Your task to perform on an android device: What's on my calendar today? Image 0: 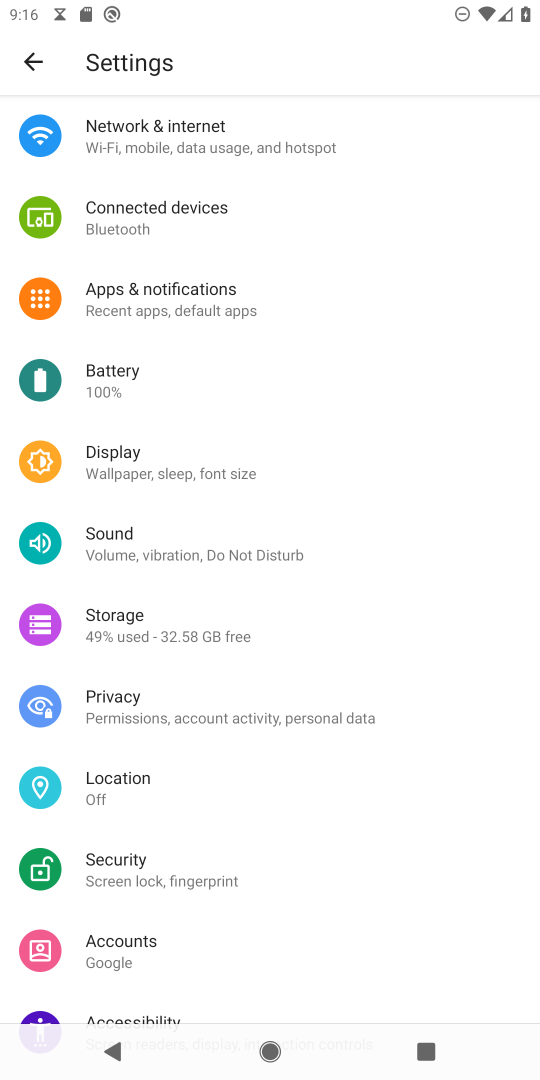
Step 0: press home button
Your task to perform on an android device: What's on my calendar today? Image 1: 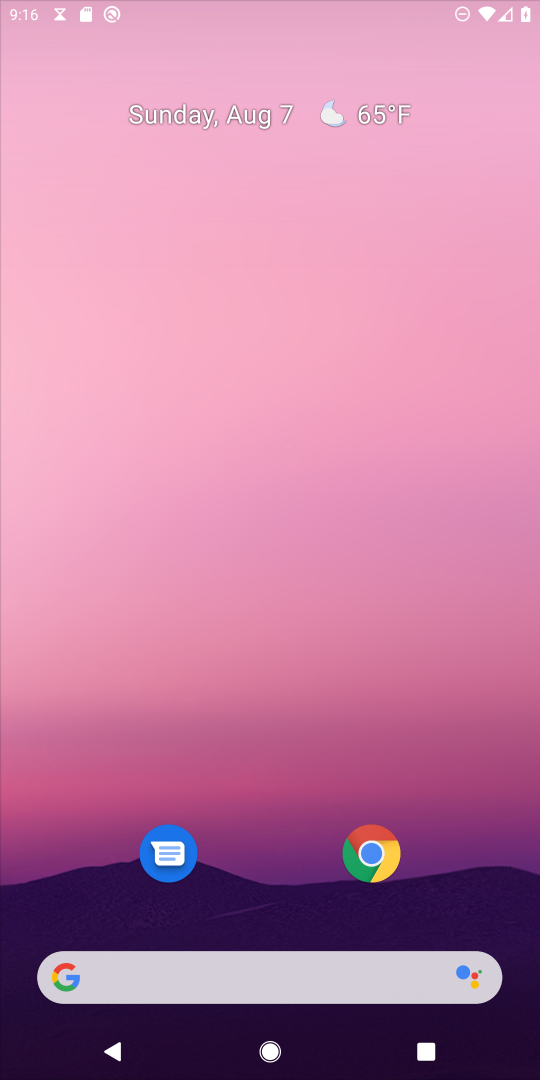
Step 1: drag from (304, 915) to (291, 255)
Your task to perform on an android device: What's on my calendar today? Image 2: 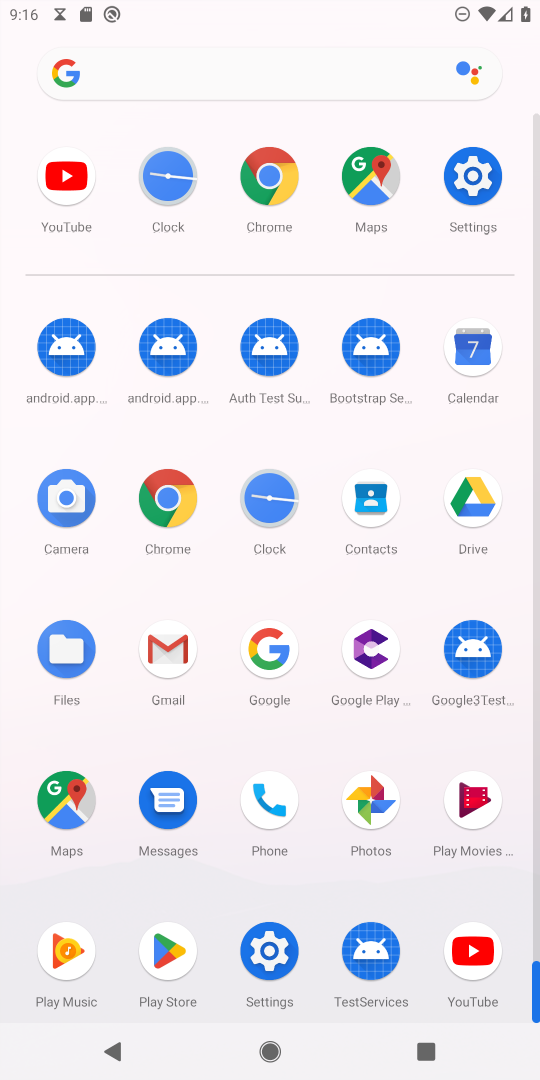
Step 2: click (464, 335)
Your task to perform on an android device: What's on my calendar today? Image 3: 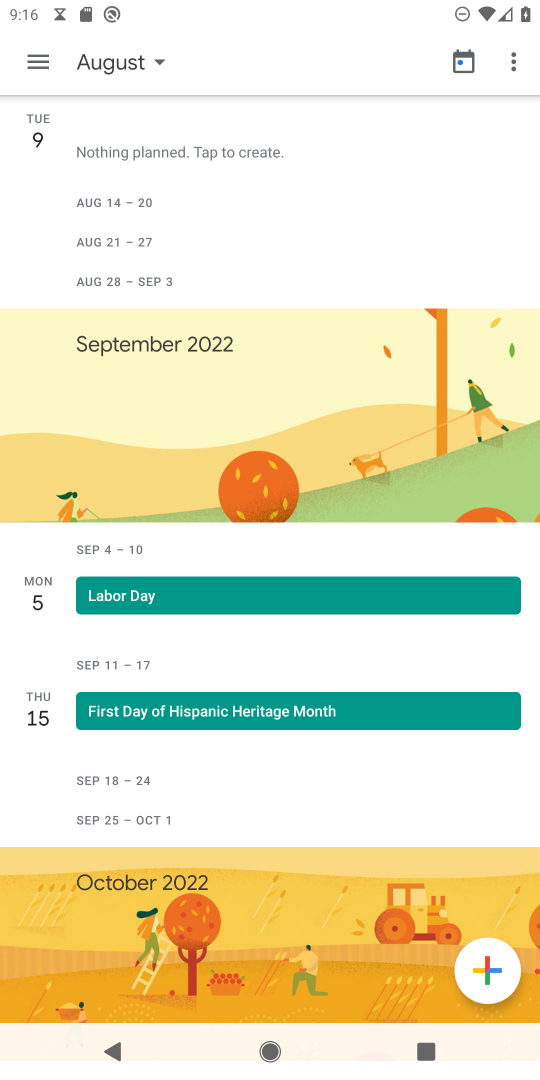
Step 3: click (35, 52)
Your task to perform on an android device: What's on my calendar today? Image 4: 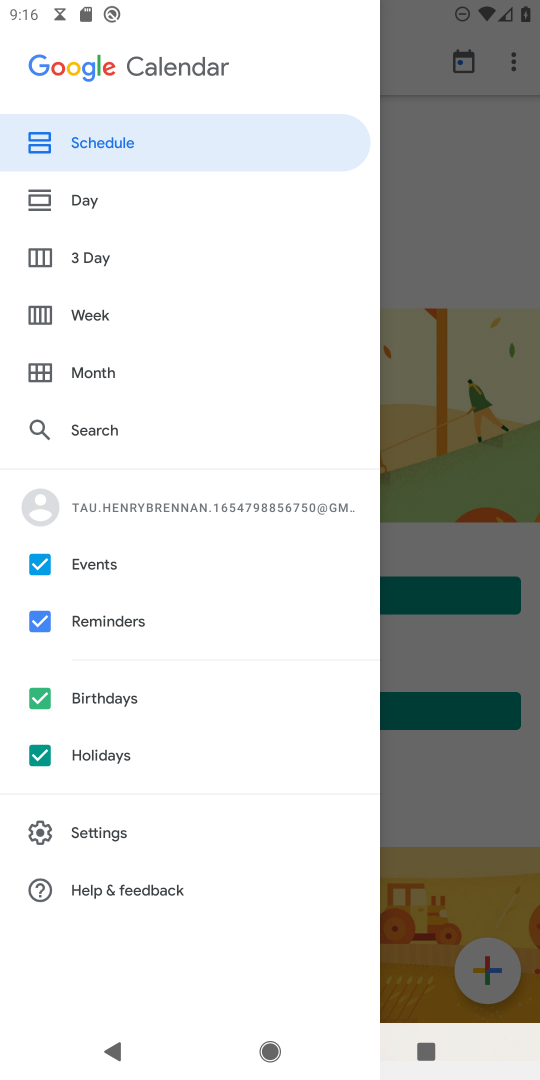
Step 4: click (135, 360)
Your task to perform on an android device: What's on my calendar today? Image 5: 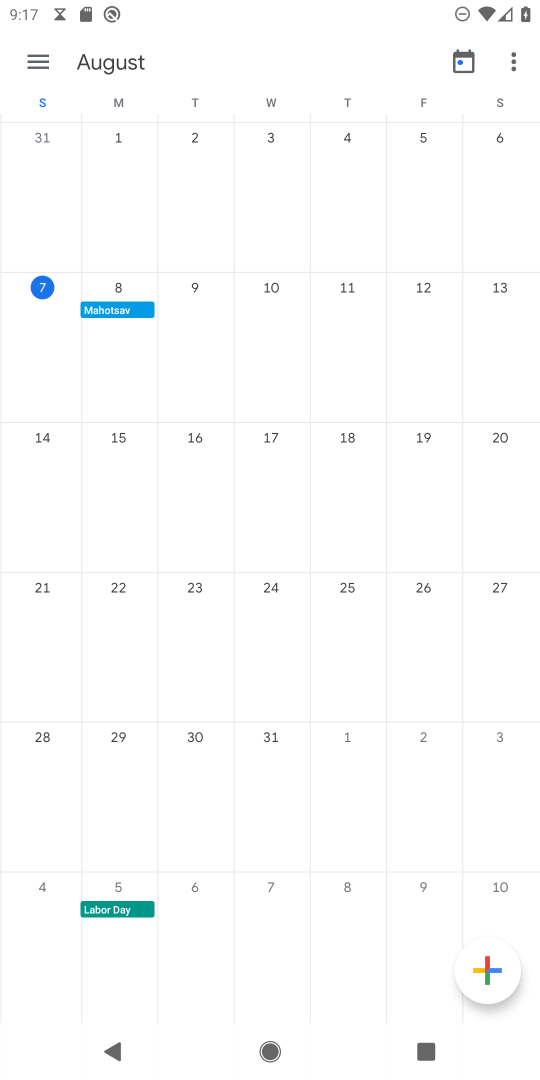
Step 5: click (104, 351)
Your task to perform on an android device: What's on my calendar today? Image 6: 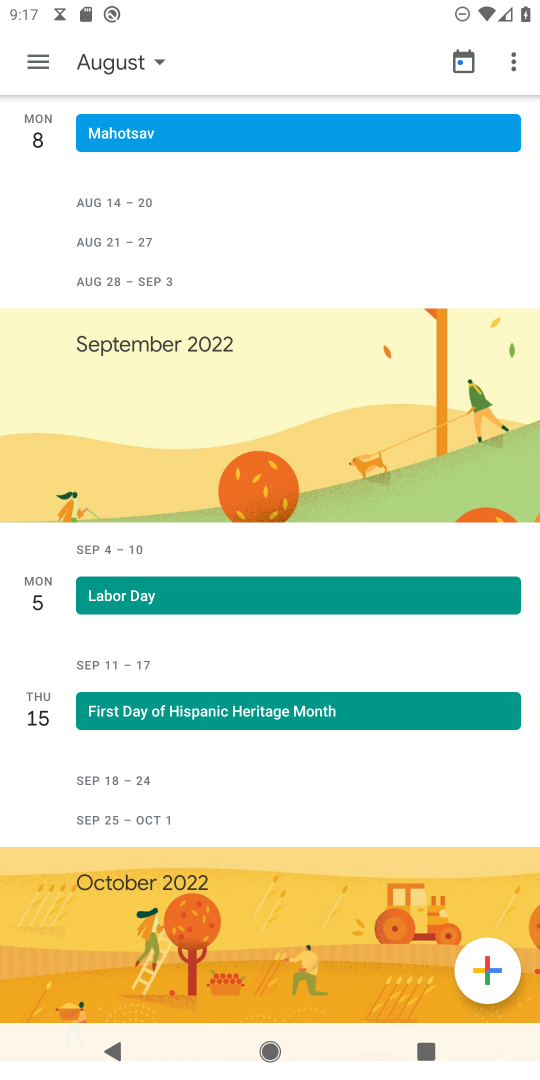
Step 6: task complete